Your task to perform on an android device: Open wifi settings Image 0: 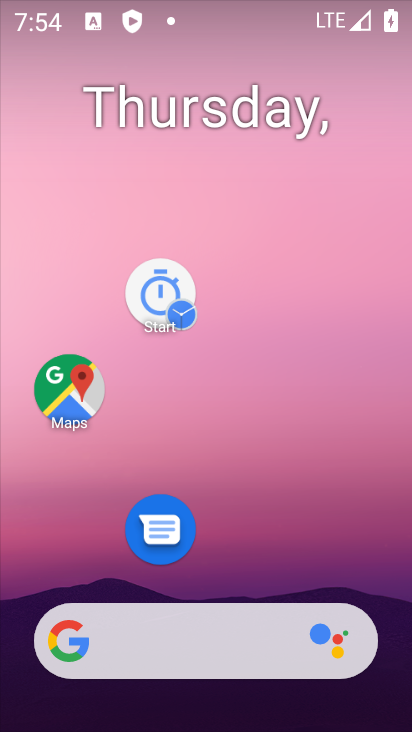
Step 0: drag from (289, 528) to (250, 182)
Your task to perform on an android device: Open wifi settings Image 1: 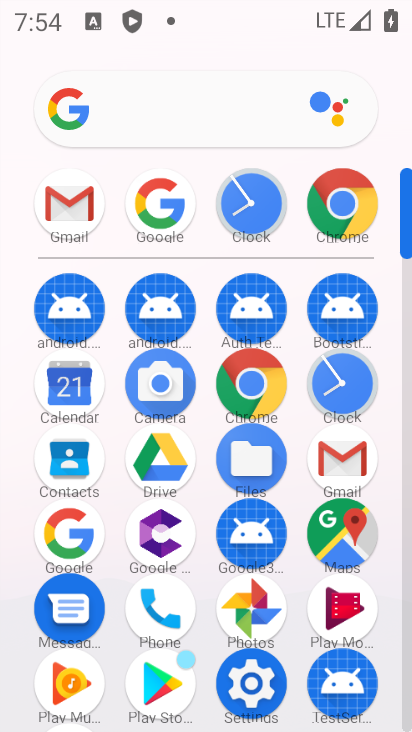
Step 1: click (267, 682)
Your task to perform on an android device: Open wifi settings Image 2: 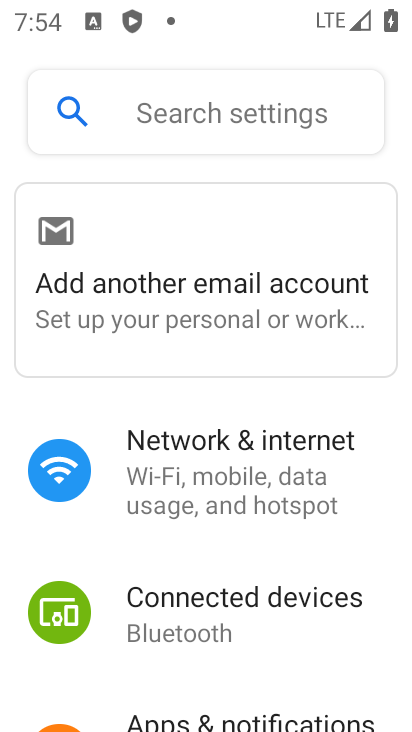
Step 2: click (334, 443)
Your task to perform on an android device: Open wifi settings Image 3: 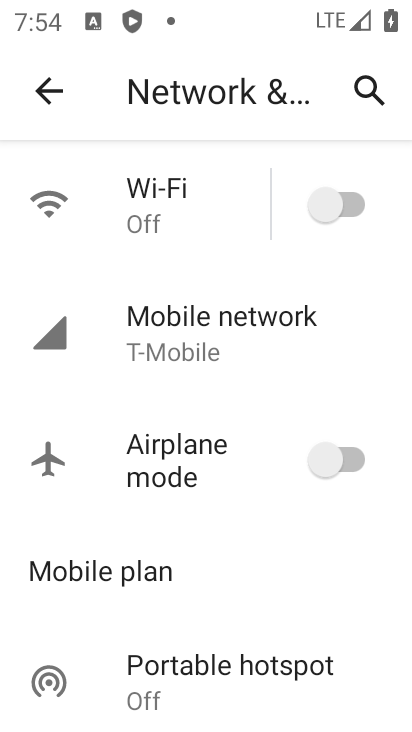
Step 3: click (351, 213)
Your task to perform on an android device: Open wifi settings Image 4: 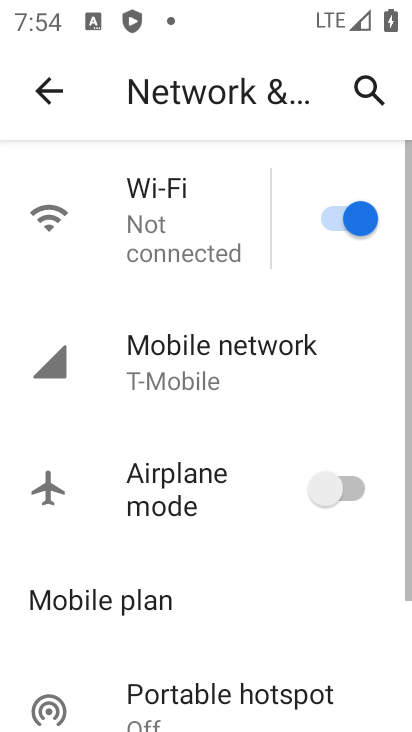
Step 4: click (162, 197)
Your task to perform on an android device: Open wifi settings Image 5: 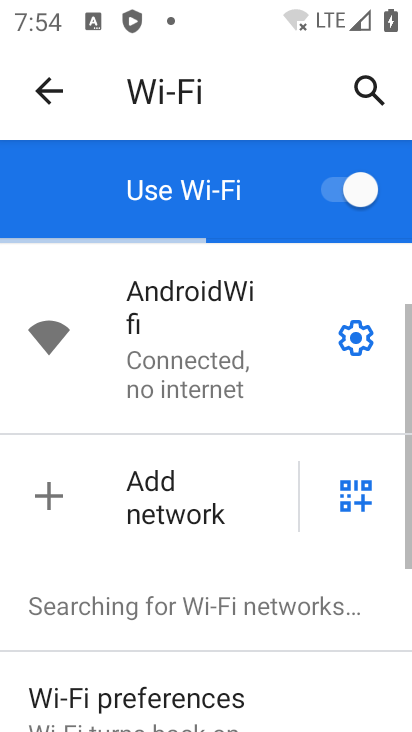
Step 5: task complete